Your task to perform on an android device: open app "Viber Messenger" (install if not already installed) Image 0: 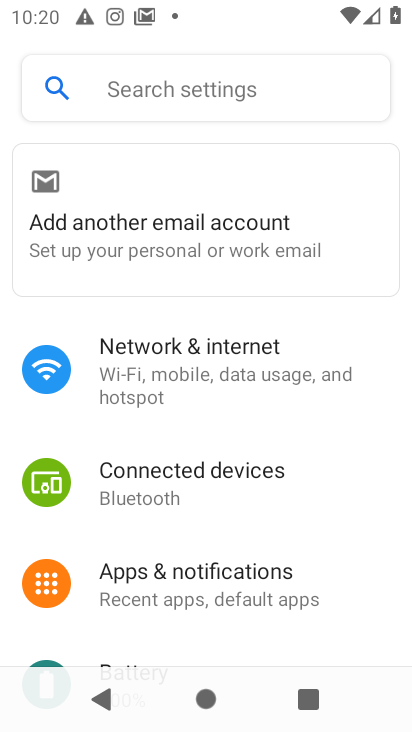
Step 0: press home button
Your task to perform on an android device: open app "Viber Messenger" (install if not already installed) Image 1: 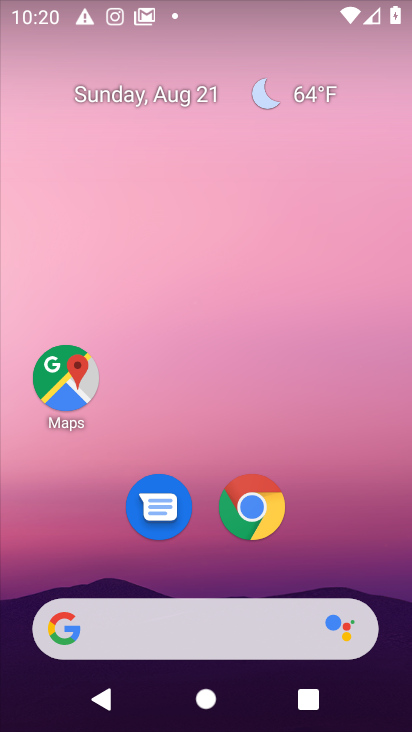
Step 1: drag from (206, 515) to (202, 114)
Your task to perform on an android device: open app "Viber Messenger" (install if not already installed) Image 2: 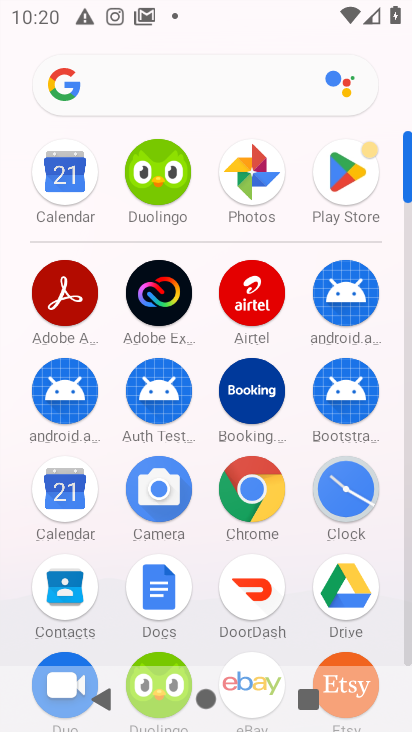
Step 2: click (340, 178)
Your task to perform on an android device: open app "Viber Messenger" (install if not already installed) Image 3: 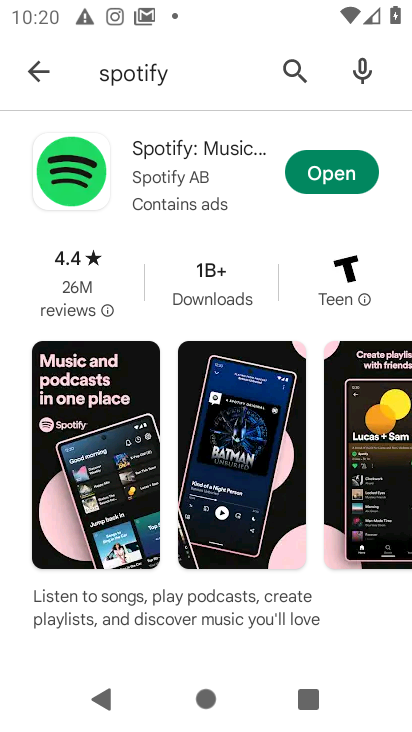
Step 3: click (36, 71)
Your task to perform on an android device: open app "Viber Messenger" (install if not already installed) Image 4: 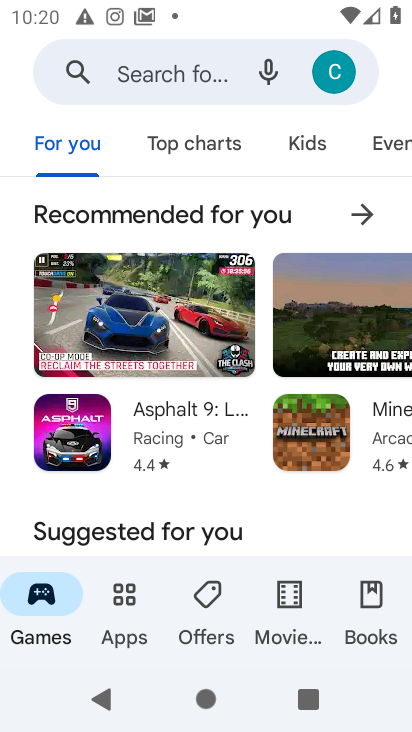
Step 4: click (204, 79)
Your task to perform on an android device: open app "Viber Messenger" (install if not already installed) Image 5: 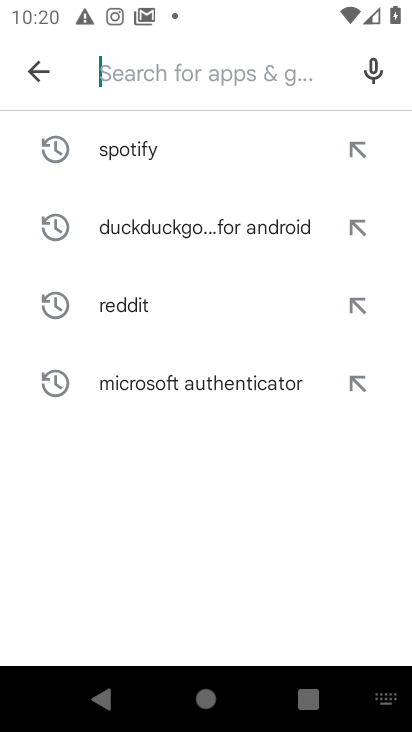
Step 5: type "Viber Messenger"
Your task to perform on an android device: open app "Viber Messenger" (install if not already installed) Image 6: 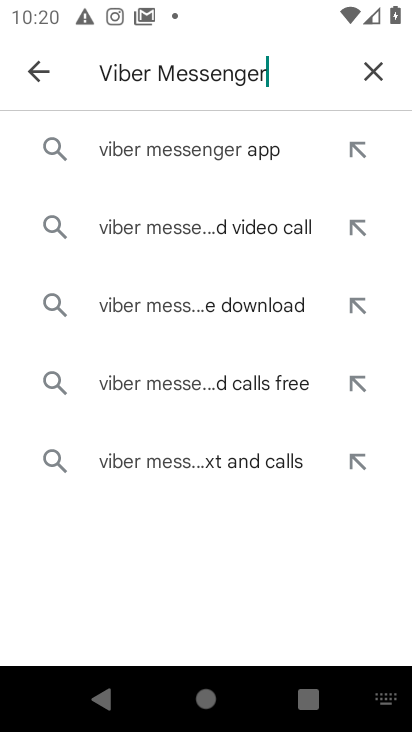
Step 6: click (152, 145)
Your task to perform on an android device: open app "Viber Messenger" (install if not already installed) Image 7: 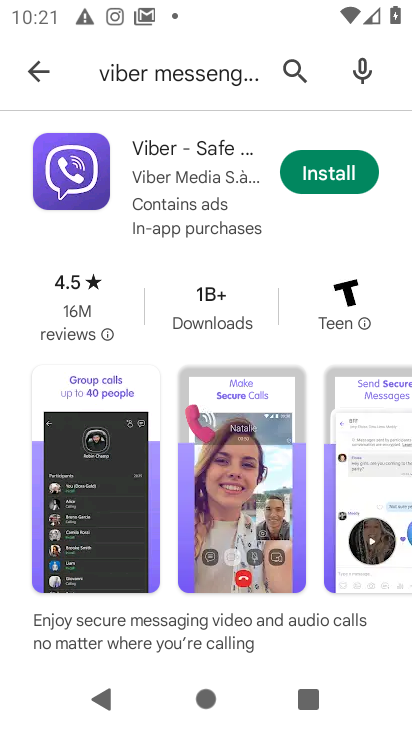
Step 7: click (328, 174)
Your task to perform on an android device: open app "Viber Messenger" (install if not already installed) Image 8: 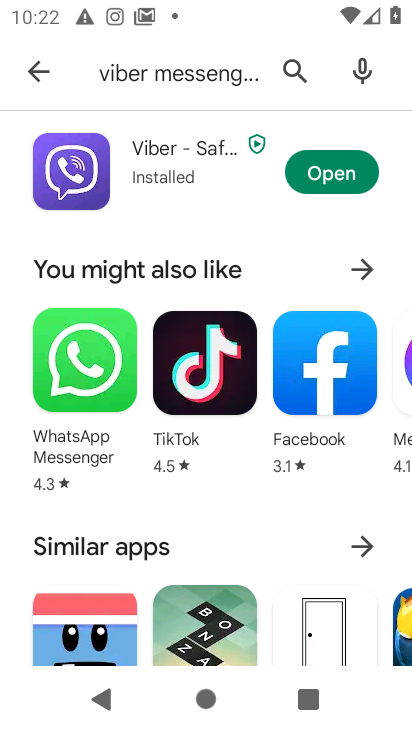
Step 8: click (328, 174)
Your task to perform on an android device: open app "Viber Messenger" (install if not already installed) Image 9: 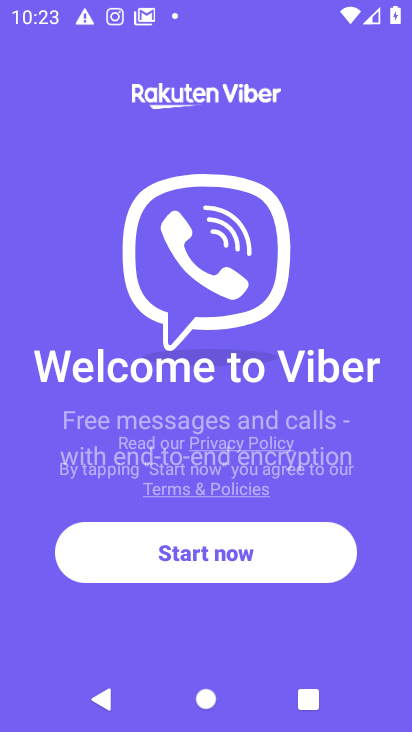
Step 9: task complete